Your task to perform on an android device: Search for "lenovo thinkpad" on amazon, select the first entry, add it to the cart, then select checkout. Image 0: 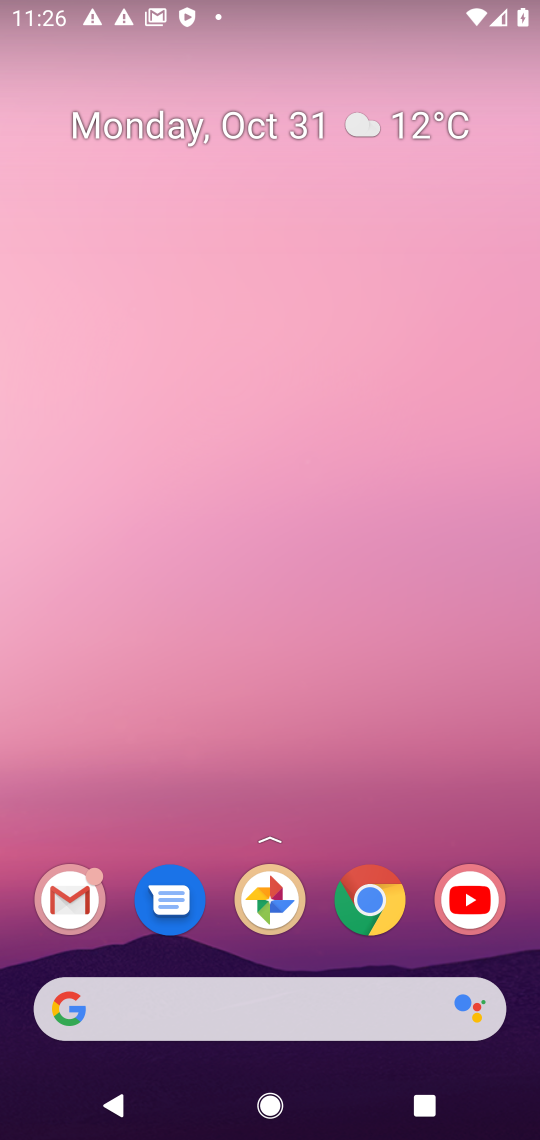
Step 0: click (142, 990)
Your task to perform on an android device: Search for "lenovo thinkpad" on amazon, select the first entry, add it to the cart, then select checkout. Image 1: 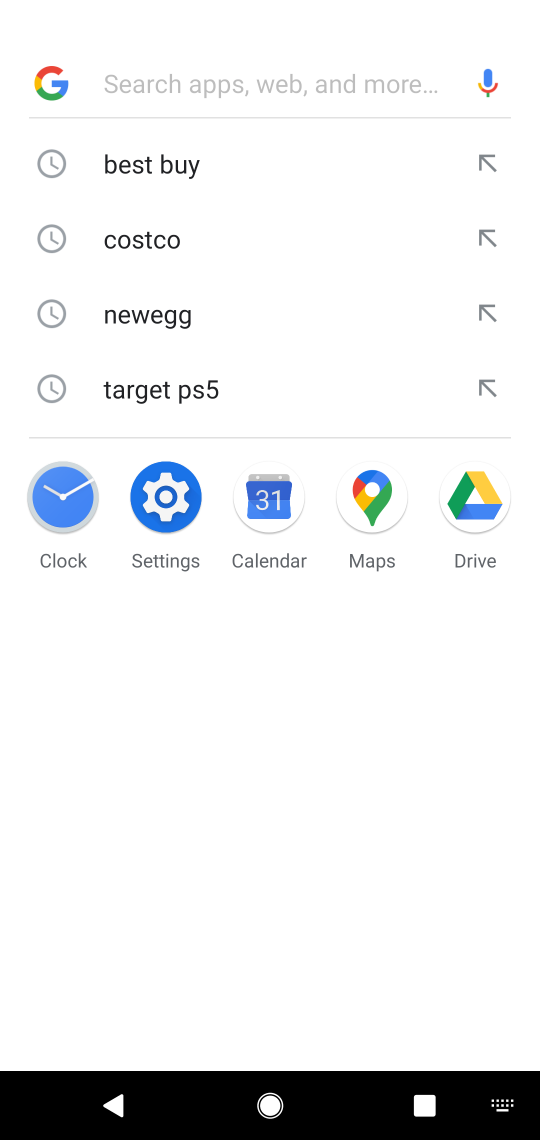
Step 1: task complete